Your task to perform on an android device: Open Google Chrome and click the shortcut for Amazon.com Image 0: 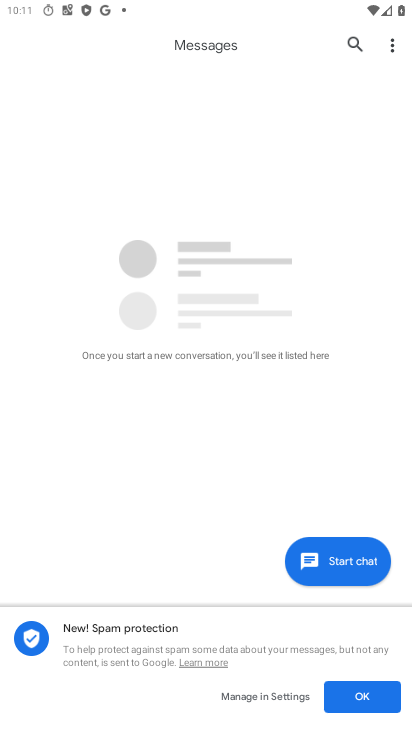
Step 0: press home button
Your task to perform on an android device: Open Google Chrome and click the shortcut for Amazon.com Image 1: 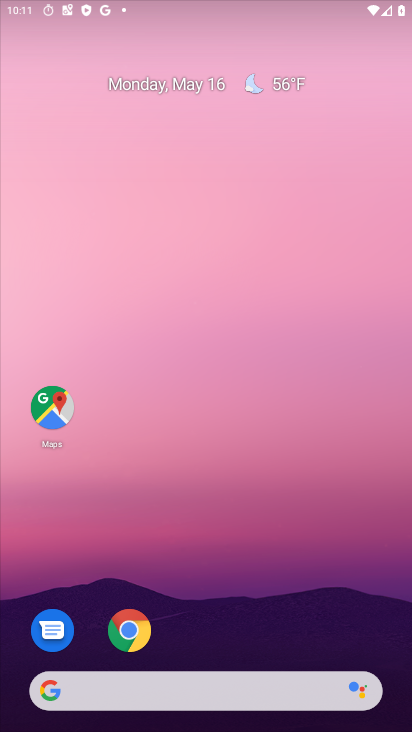
Step 1: drag from (247, 638) to (295, 57)
Your task to perform on an android device: Open Google Chrome and click the shortcut for Amazon.com Image 2: 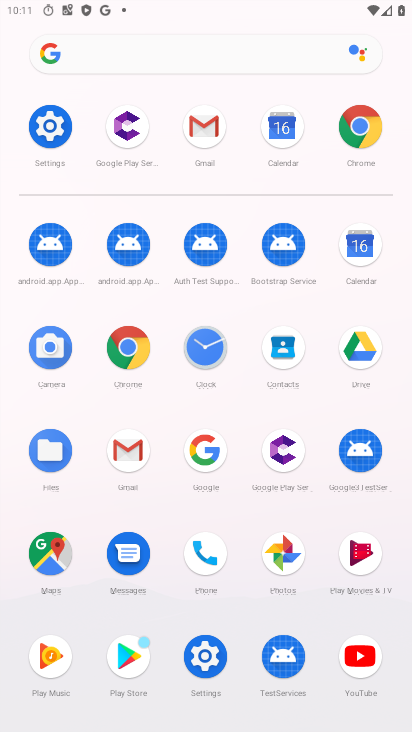
Step 2: click (127, 359)
Your task to perform on an android device: Open Google Chrome and click the shortcut for Amazon.com Image 3: 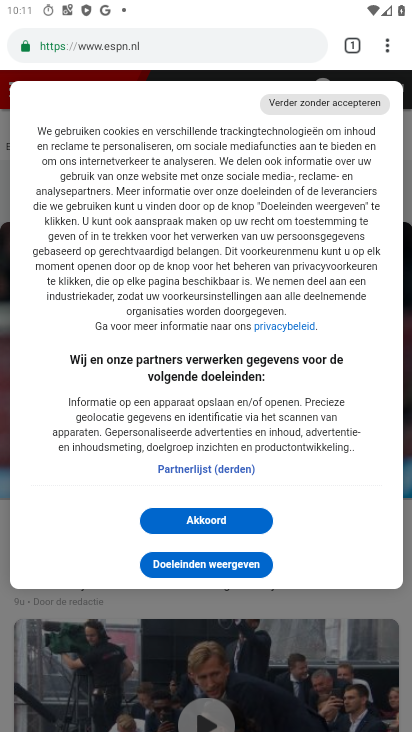
Step 3: click (391, 41)
Your task to perform on an android device: Open Google Chrome and click the shortcut for Amazon.com Image 4: 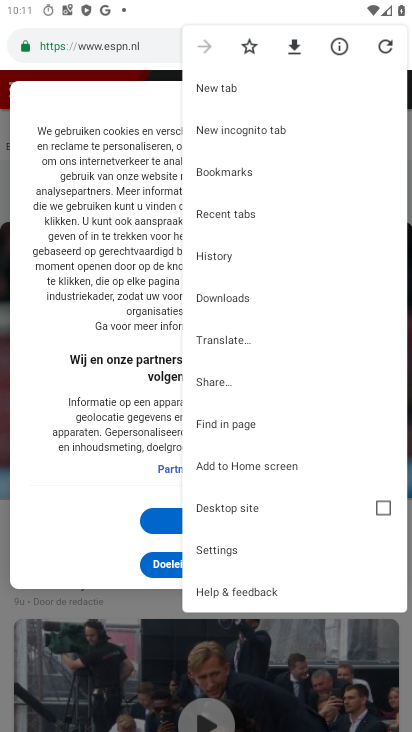
Step 4: click (224, 84)
Your task to perform on an android device: Open Google Chrome and click the shortcut for Amazon.com Image 5: 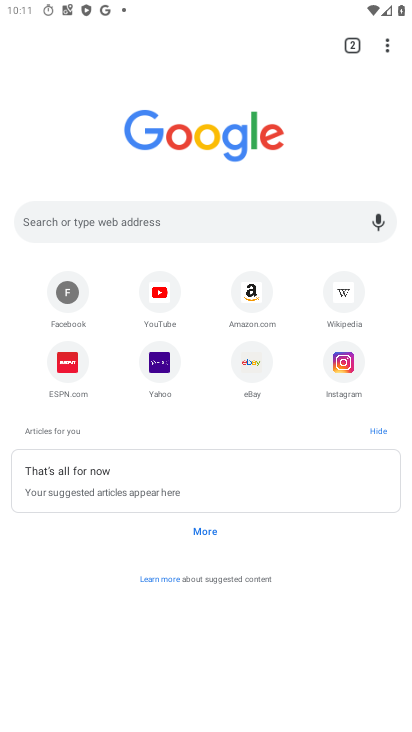
Step 5: click (241, 296)
Your task to perform on an android device: Open Google Chrome and click the shortcut for Amazon.com Image 6: 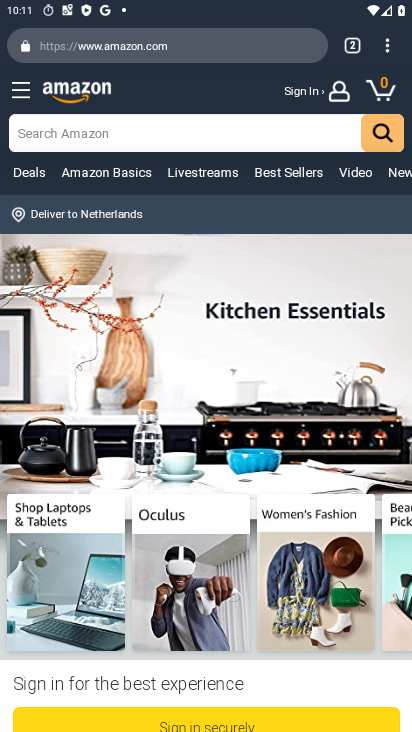
Step 6: task complete